Your task to perform on an android device: open app "PUBG MOBILE" Image 0: 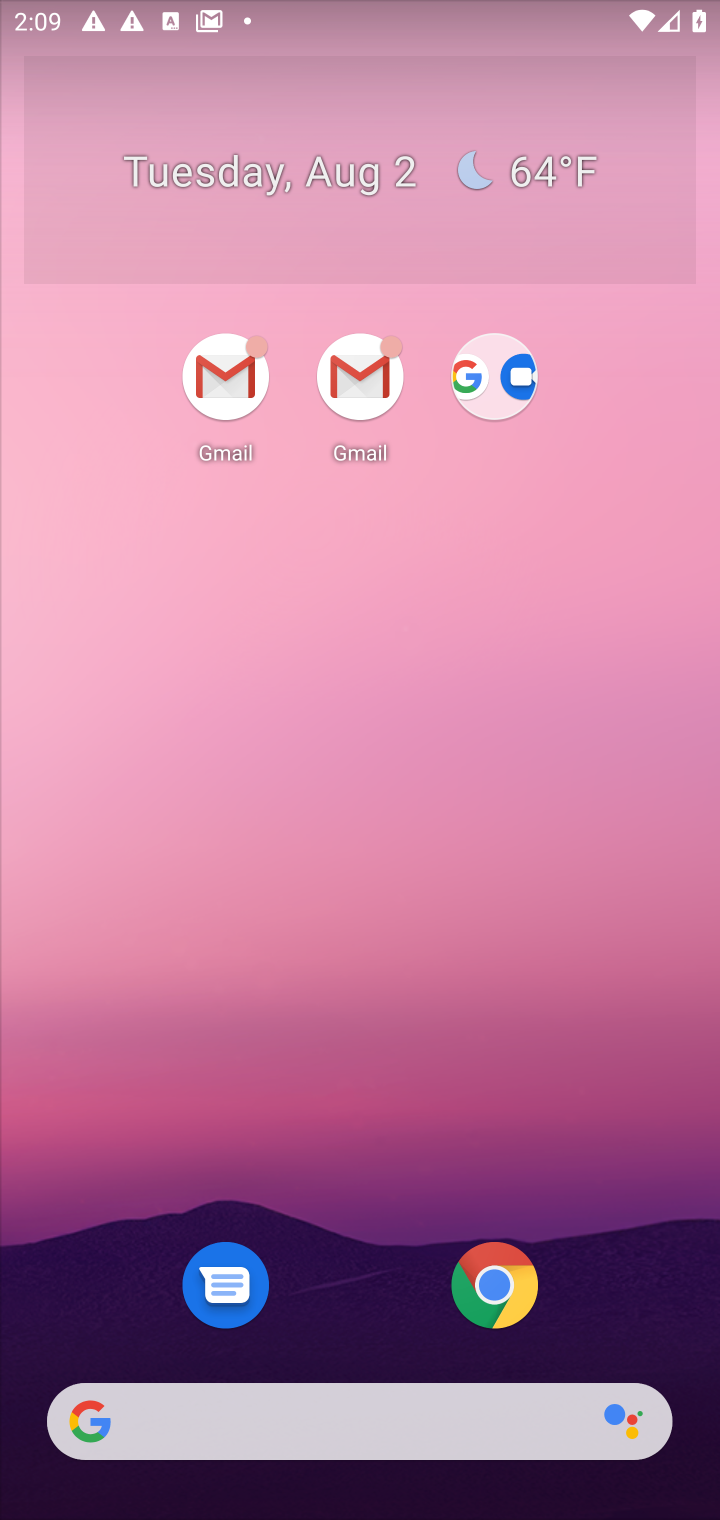
Step 0: press home button
Your task to perform on an android device: open app "PUBG MOBILE" Image 1: 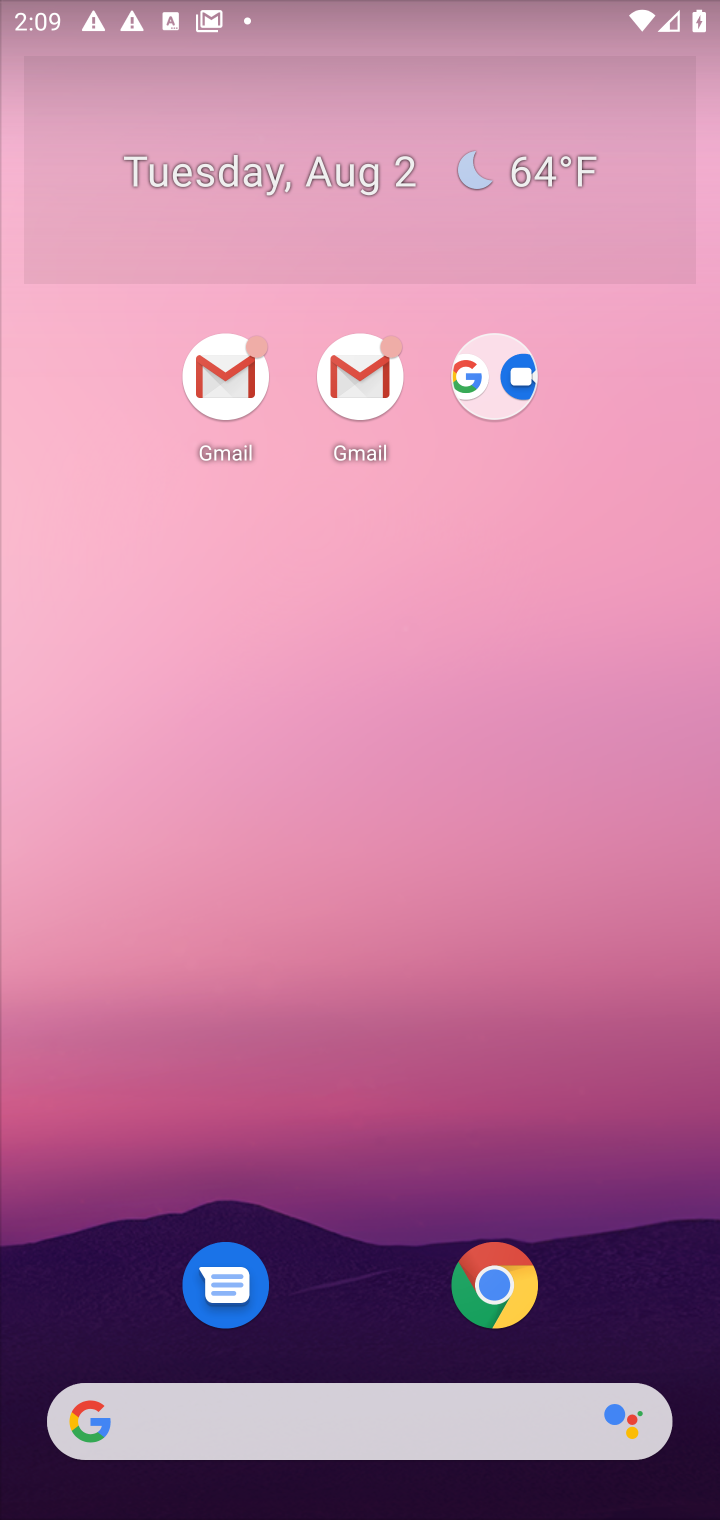
Step 1: drag from (337, 1235) to (385, 73)
Your task to perform on an android device: open app "PUBG MOBILE" Image 2: 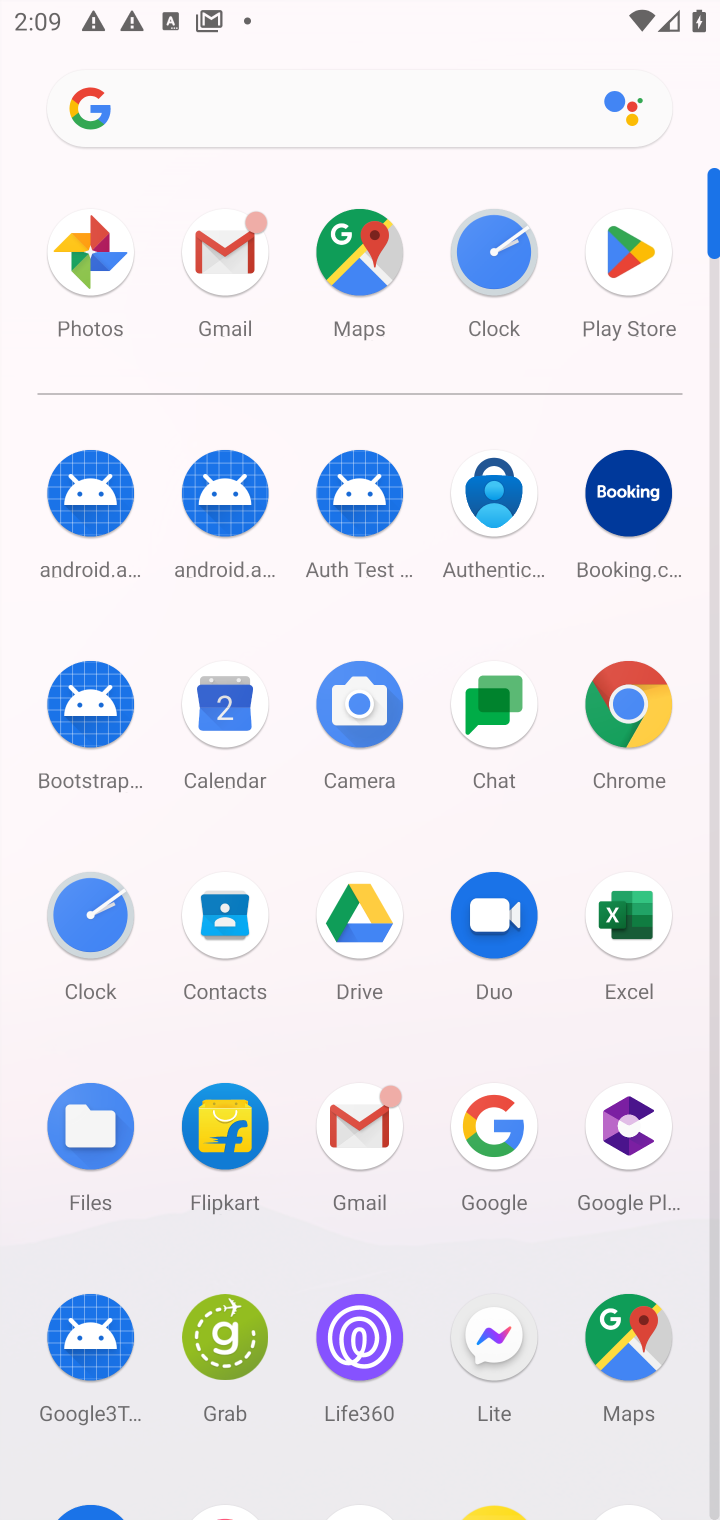
Step 2: drag from (435, 1253) to (505, 370)
Your task to perform on an android device: open app "PUBG MOBILE" Image 3: 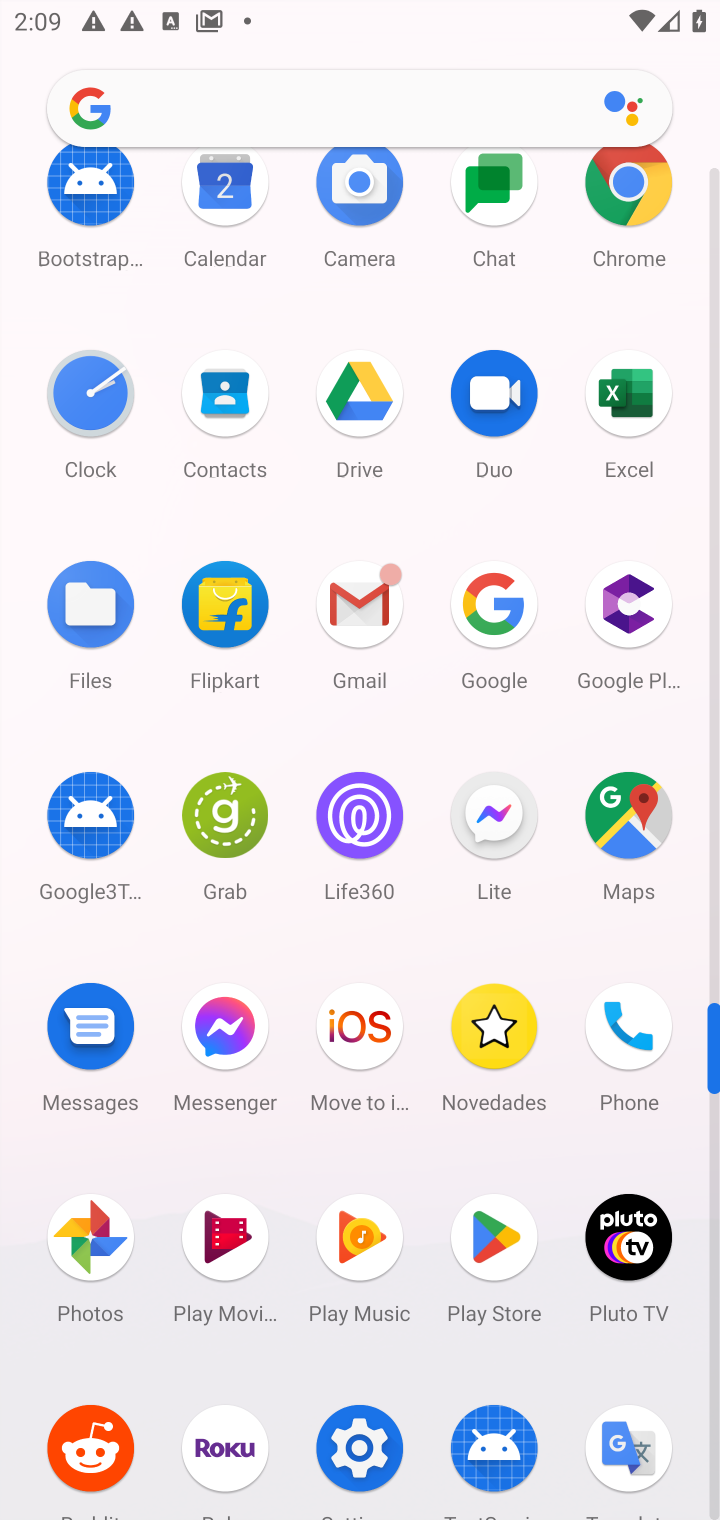
Step 3: click (497, 1225)
Your task to perform on an android device: open app "PUBG MOBILE" Image 4: 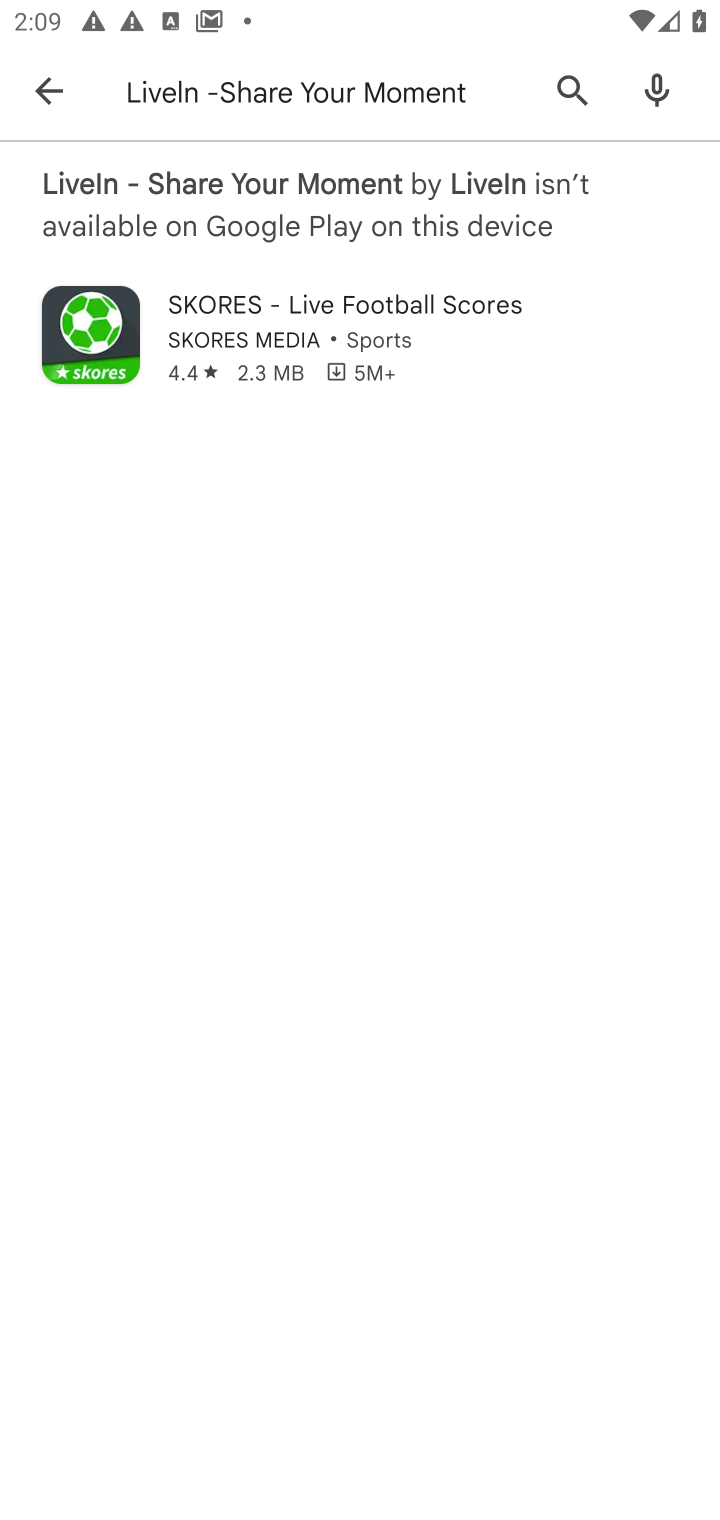
Step 4: click (254, 89)
Your task to perform on an android device: open app "PUBG MOBILE" Image 5: 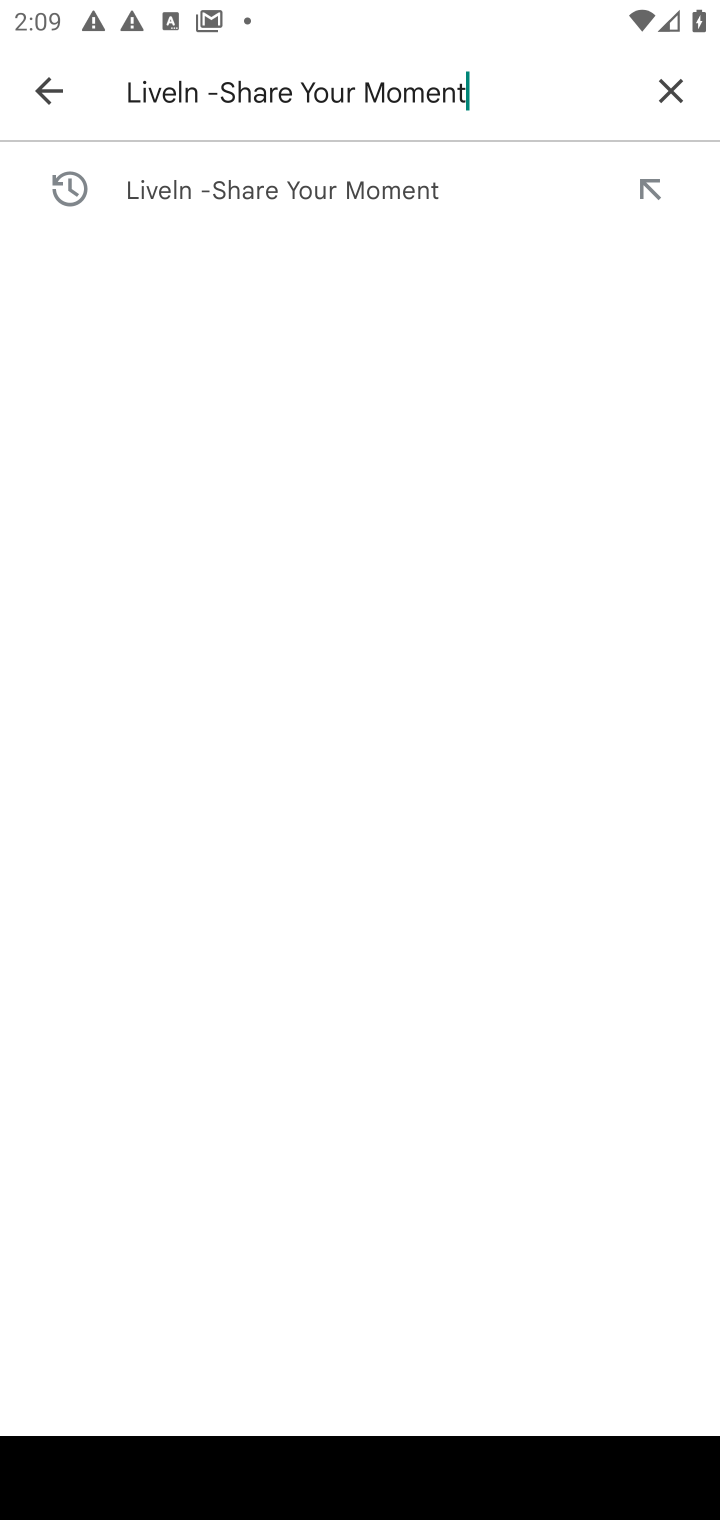
Step 5: click (660, 91)
Your task to perform on an android device: open app "PUBG MOBILE" Image 6: 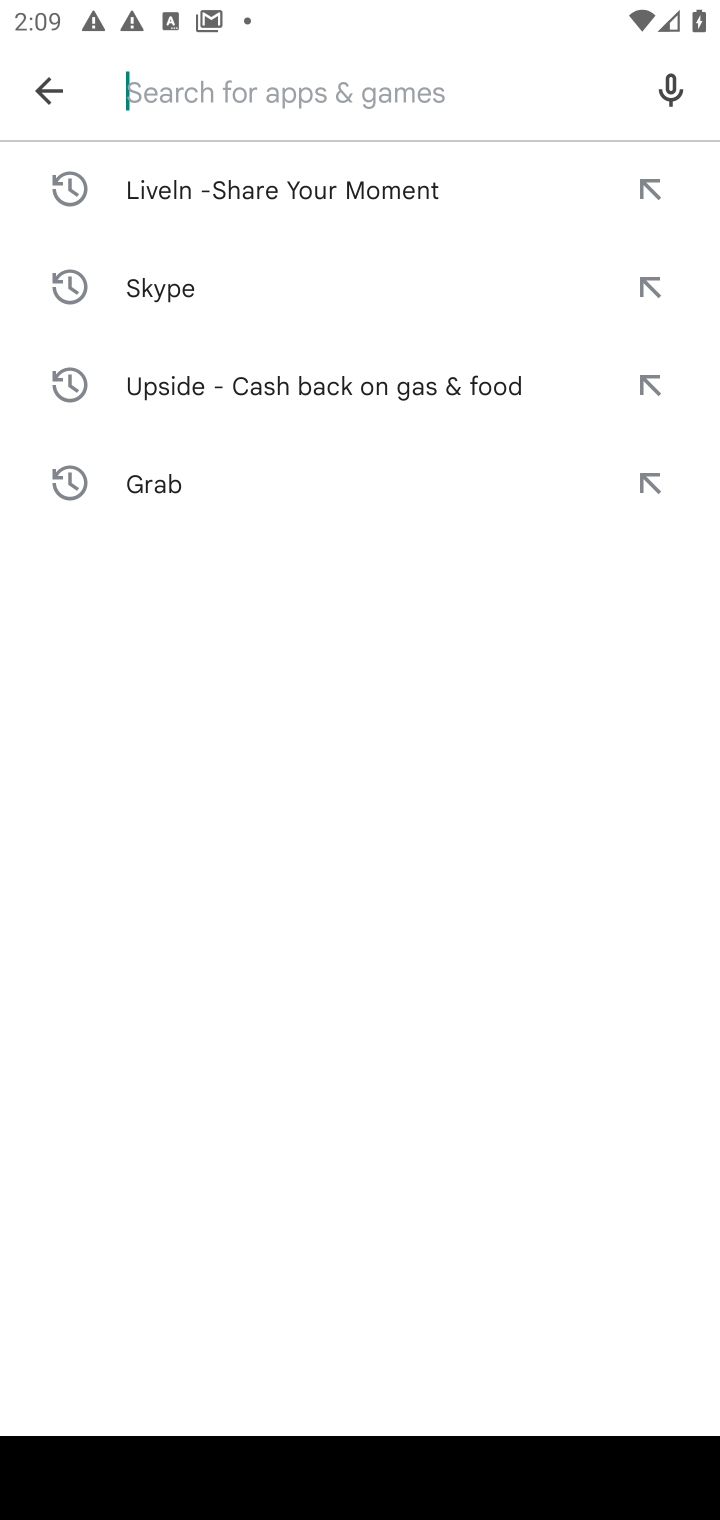
Step 6: type "PUBG MOBlE"
Your task to perform on an android device: open app "PUBG MOBILE" Image 7: 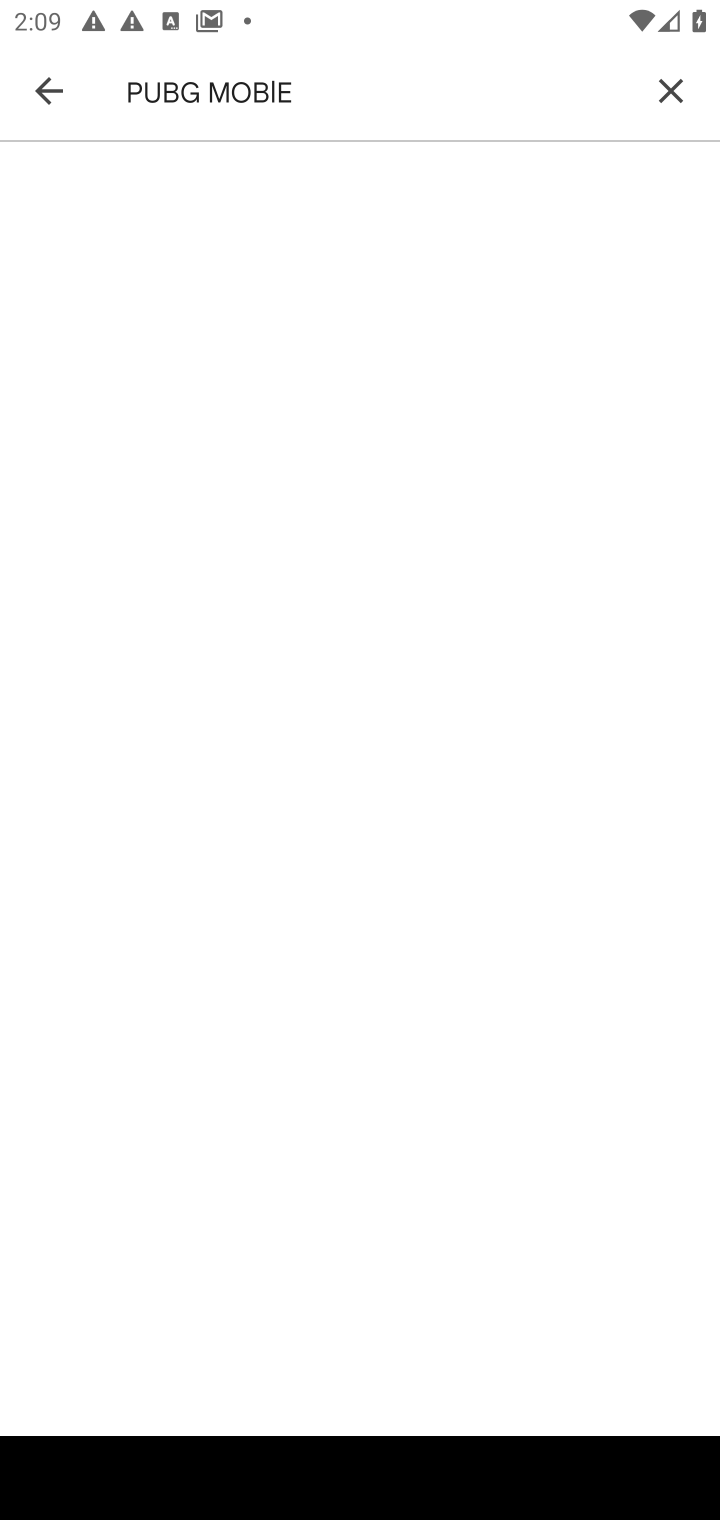
Step 7: press enter
Your task to perform on an android device: open app "PUBG MOBILE" Image 8: 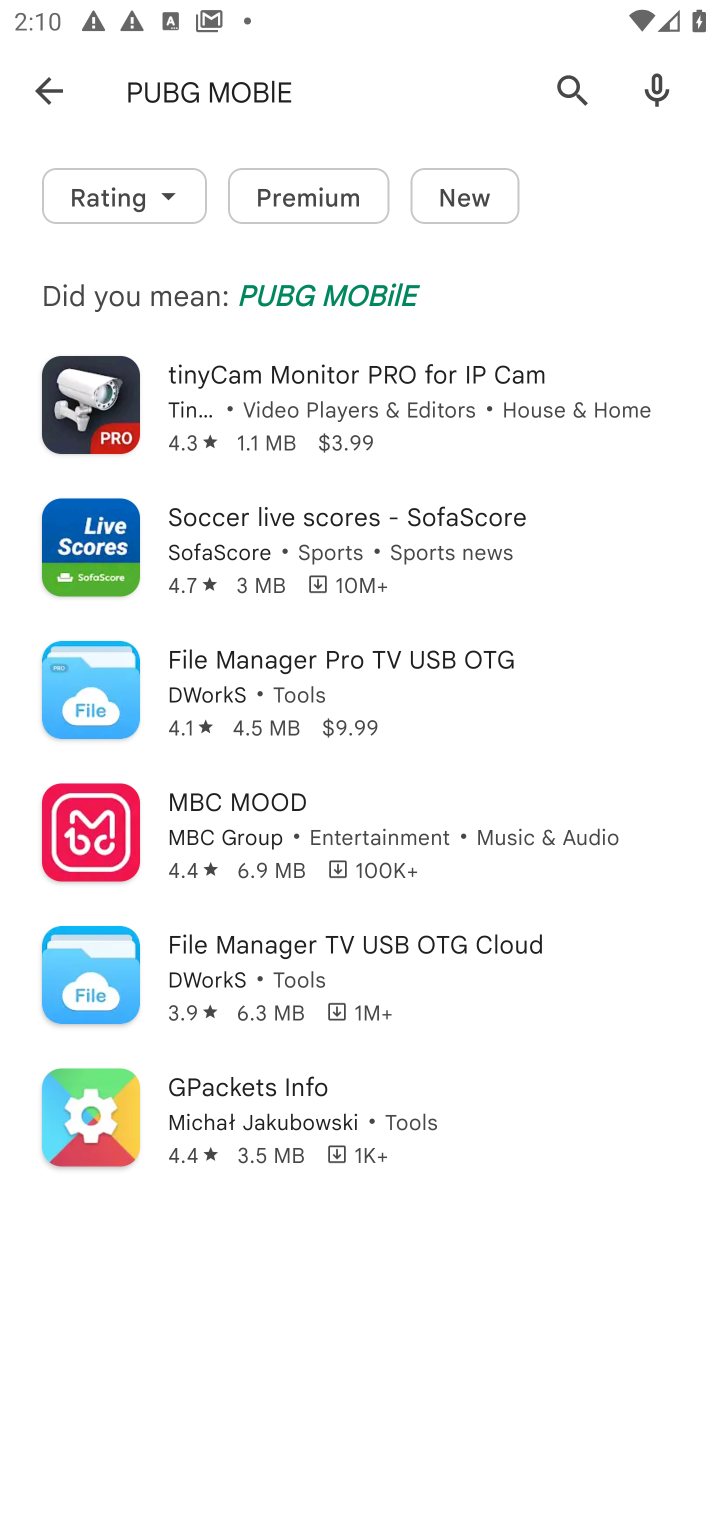
Step 8: click (373, 292)
Your task to perform on an android device: open app "PUBG MOBILE" Image 9: 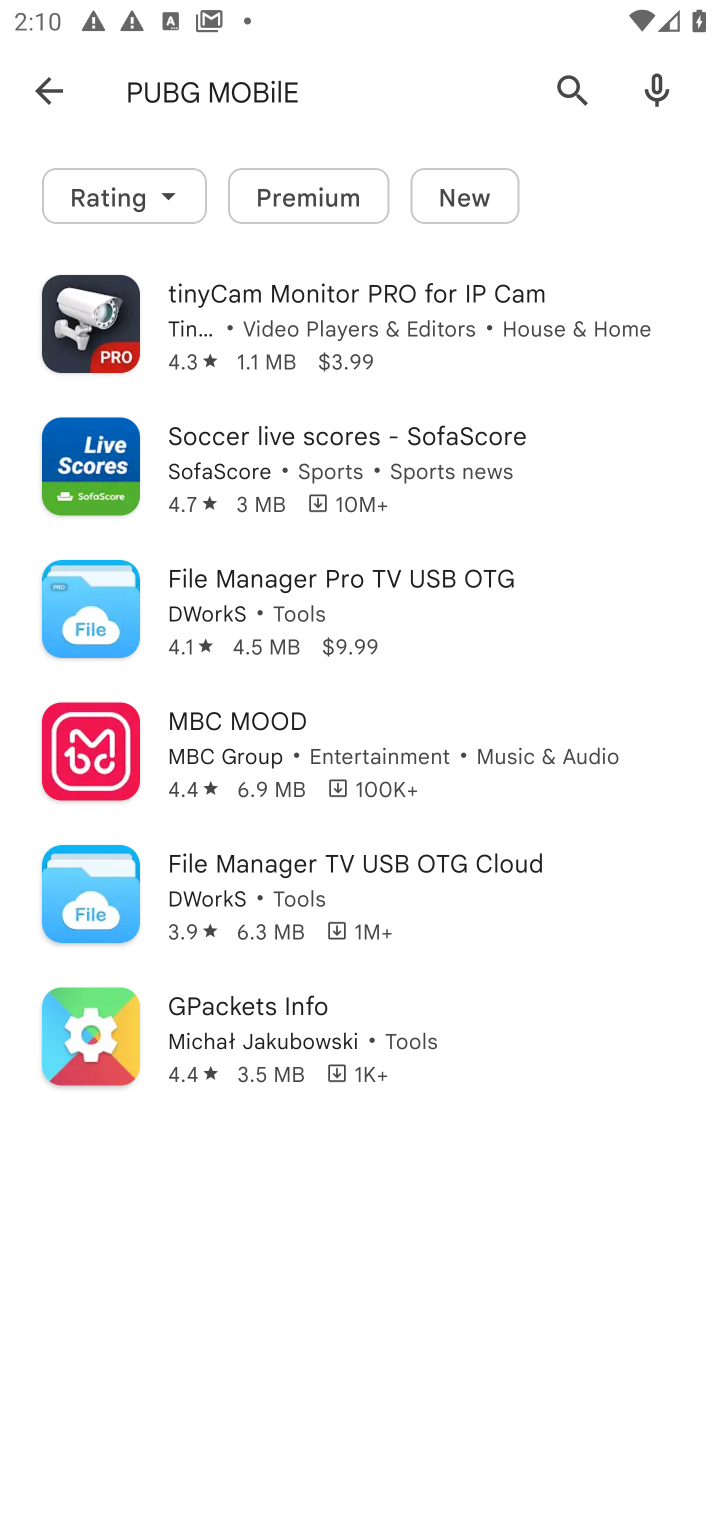
Step 9: task complete